Your task to perform on an android device: toggle javascript in the chrome app Image 0: 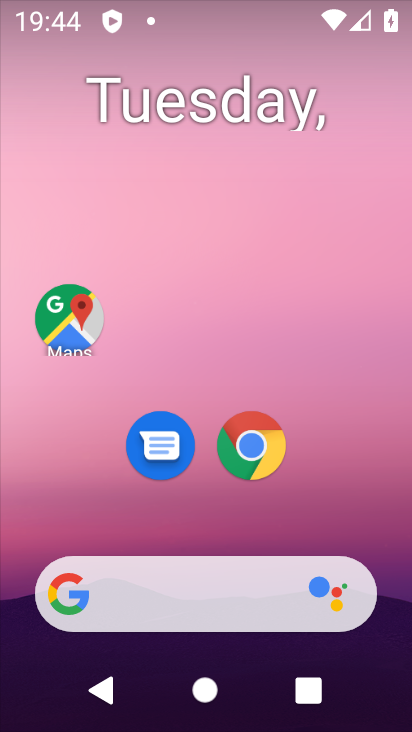
Step 0: click (265, 441)
Your task to perform on an android device: toggle javascript in the chrome app Image 1: 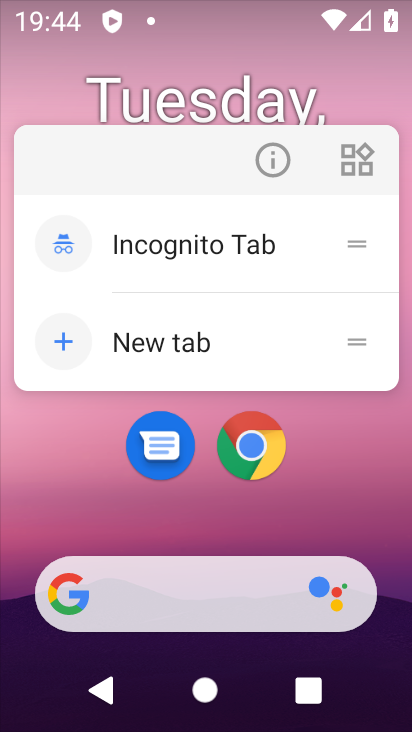
Step 1: click (253, 455)
Your task to perform on an android device: toggle javascript in the chrome app Image 2: 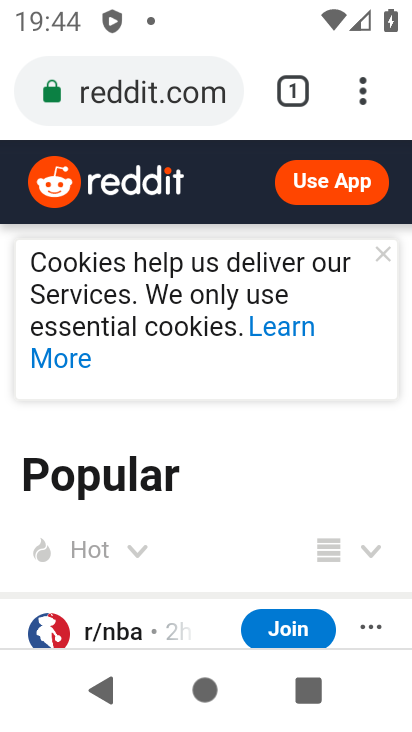
Step 2: click (359, 109)
Your task to perform on an android device: toggle javascript in the chrome app Image 3: 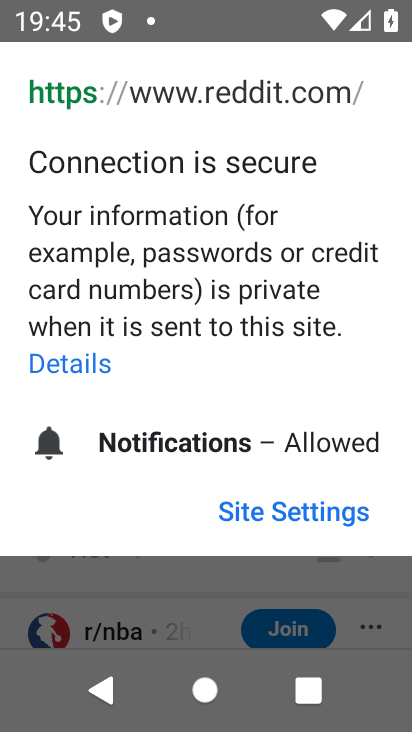
Step 3: press home button
Your task to perform on an android device: toggle javascript in the chrome app Image 4: 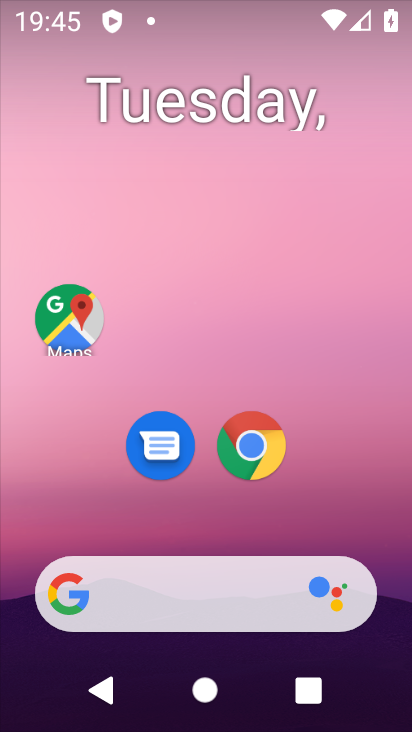
Step 4: click (261, 452)
Your task to perform on an android device: toggle javascript in the chrome app Image 5: 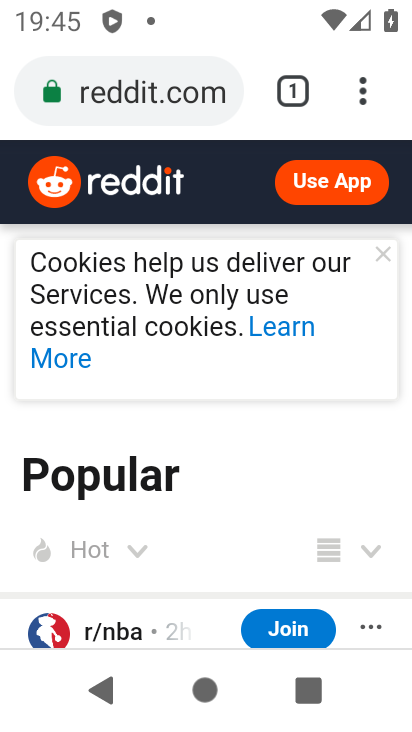
Step 5: click (354, 99)
Your task to perform on an android device: toggle javascript in the chrome app Image 6: 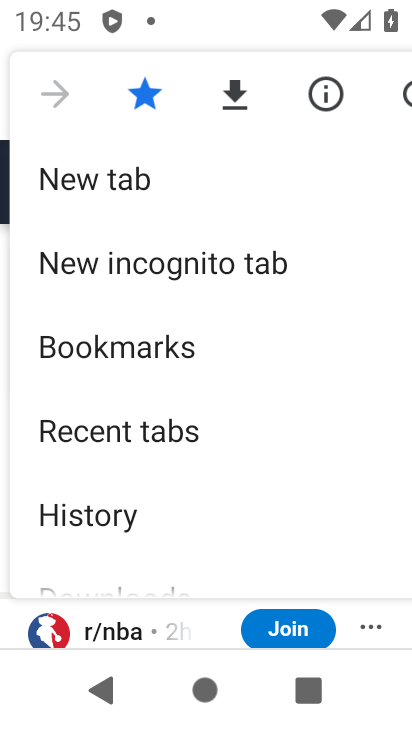
Step 6: drag from (145, 494) to (148, 94)
Your task to perform on an android device: toggle javascript in the chrome app Image 7: 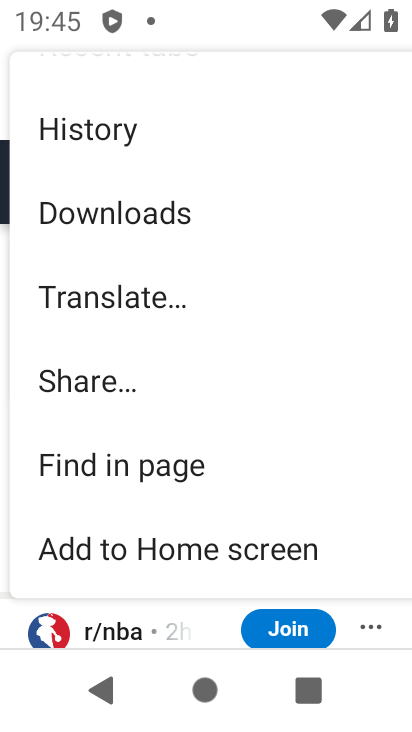
Step 7: drag from (160, 472) to (171, 78)
Your task to perform on an android device: toggle javascript in the chrome app Image 8: 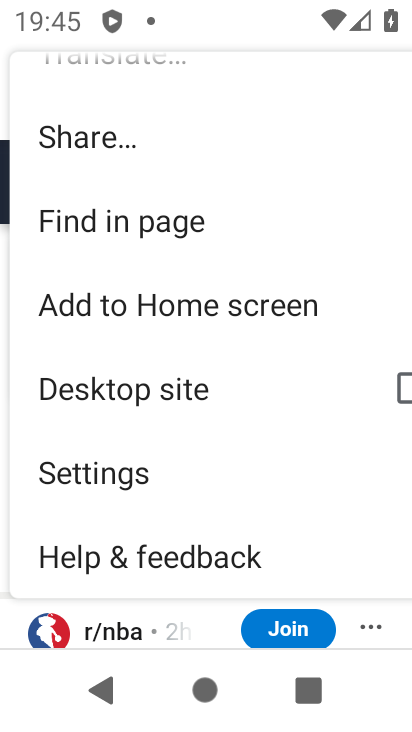
Step 8: click (120, 480)
Your task to perform on an android device: toggle javascript in the chrome app Image 9: 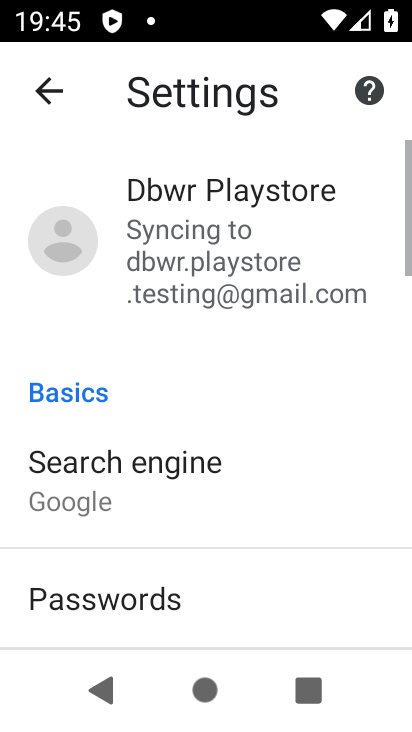
Step 9: drag from (119, 567) to (173, 243)
Your task to perform on an android device: toggle javascript in the chrome app Image 10: 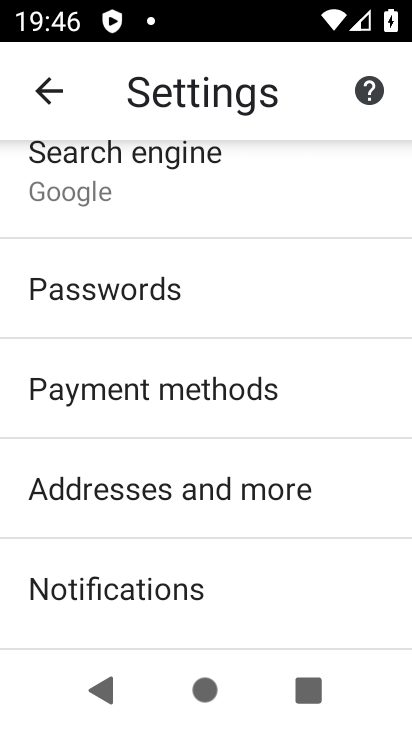
Step 10: drag from (175, 587) to (178, 301)
Your task to perform on an android device: toggle javascript in the chrome app Image 11: 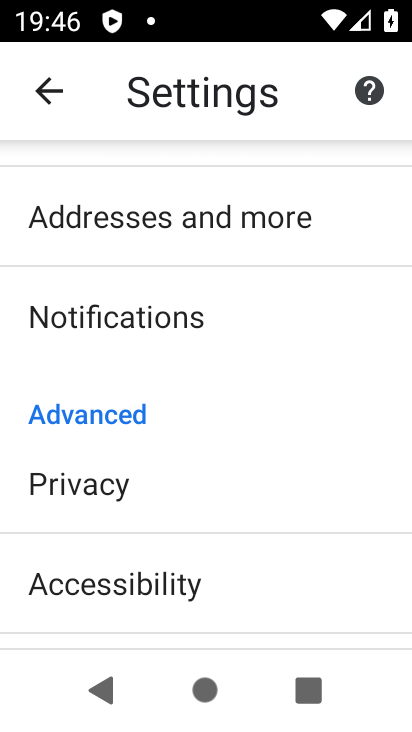
Step 11: drag from (139, 565) to (146, 315)
Your task to perform on an android device: toggle javascript in the chrome app Image 12: 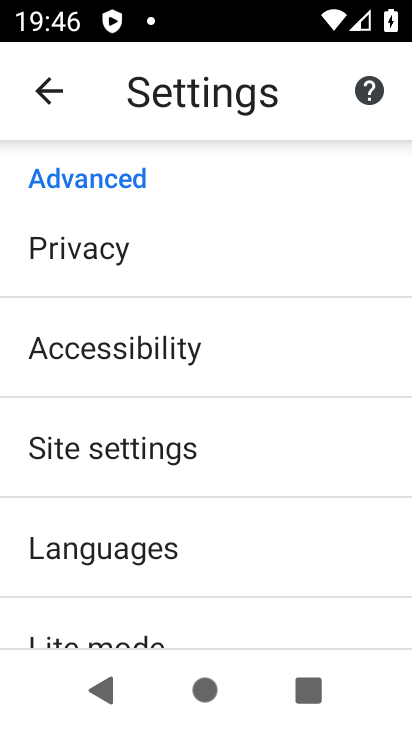
Step 12: click (146, 441)
Your task to perform on an android device: toggle javascript in the chrome app Image 13: 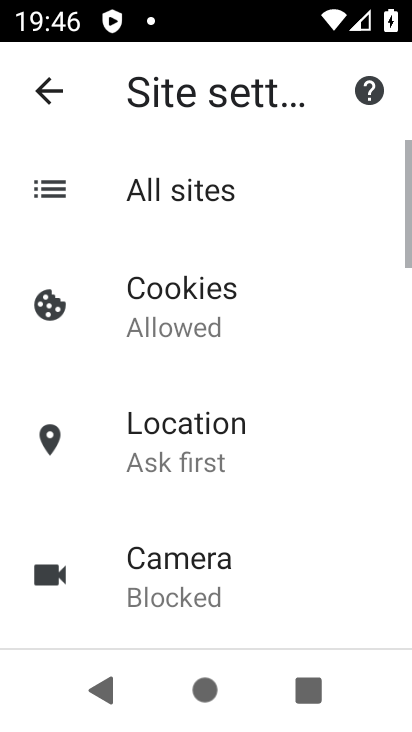
Step 13: drag from (172, 555) to (219, 273)
Your task to perform on an android device: toggle javascript in the chrome app Image 14: 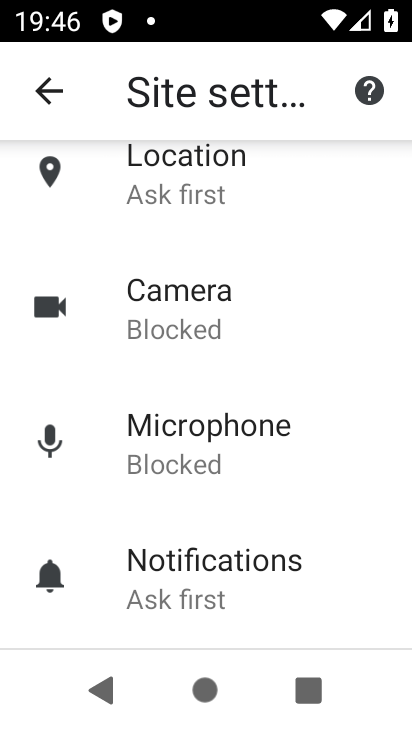
Step 14: drag from (227, 532) to (252, 282)
Your task to perform on an android device: toggle javascript in the chrome app Image 15: 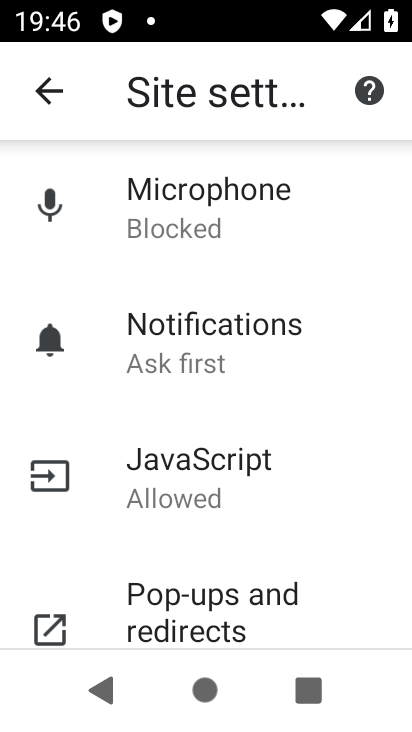
Step 15: click (204, 501)
Your task to perform on an android device: toggle javascript in the chrome app Image 16: 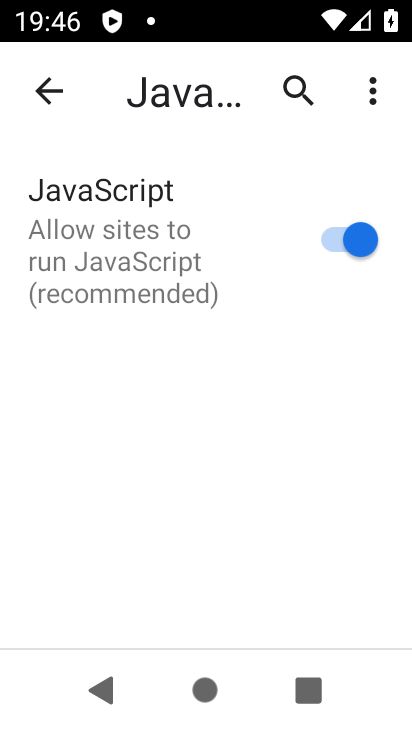
Step 16: click (341, 236)
Your task to perform on an android device: toggle javascript in the chrome app Image 17: 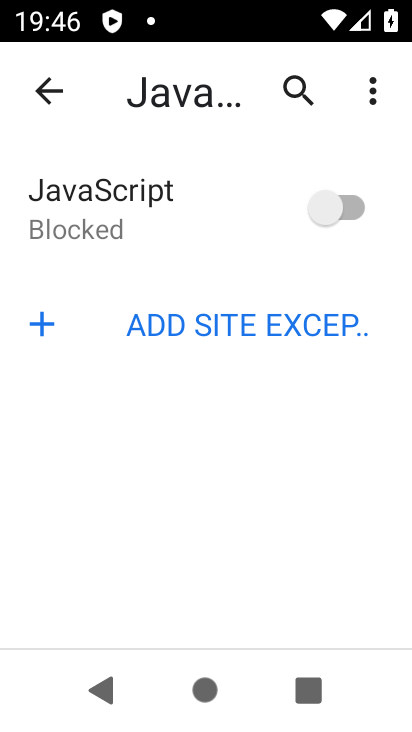
Step 17: task complete